Your task to perform on an android device: toggle improve location accuracy Image 0: 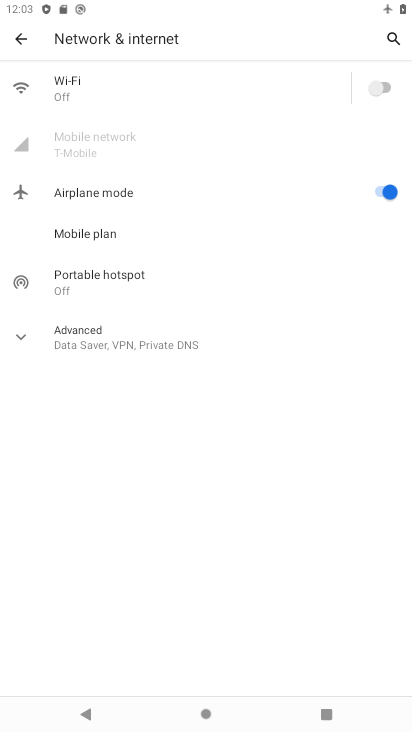
Step 0: press home button
Your task to perform on an android device: toggle improve location accuracy Image 1: 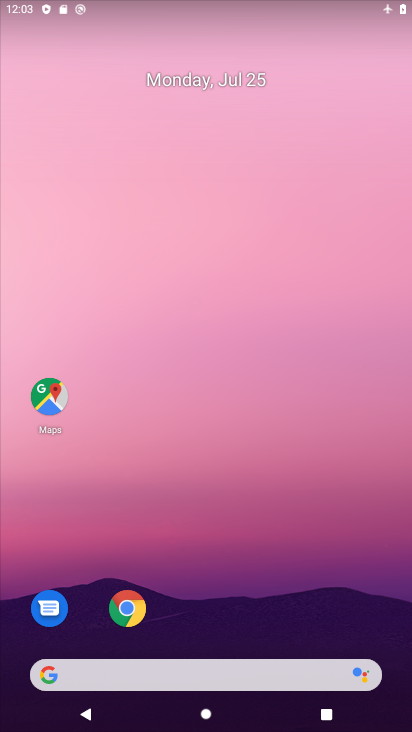
Step 1: drag from (296, 519) to (239, 164)
Your task to perform on an android device: toggle improve location accuracy Image 2: 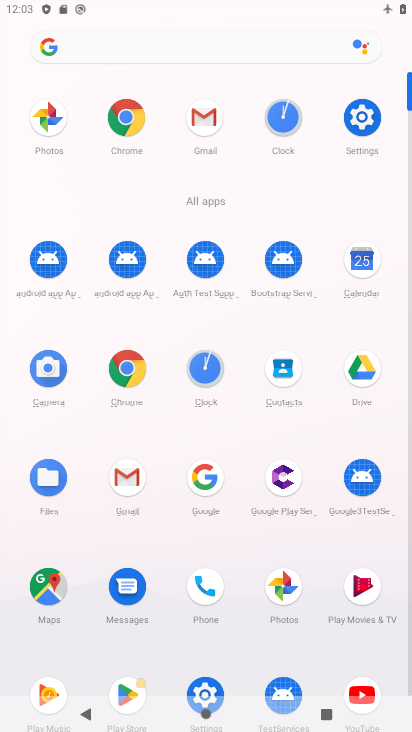
Step 2: click (199, 686)
Your task to perform on an android device: toggle improve location accuracy Image 3: 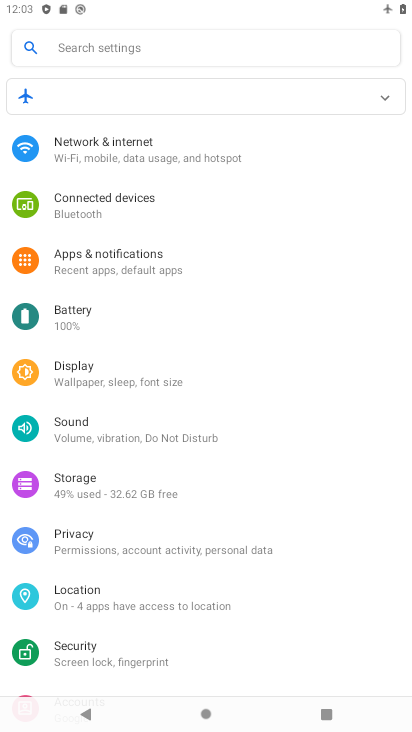
Step 3: click (141, 600)
Your task to perform on an android device: toggle improve location accuracy Image 4: 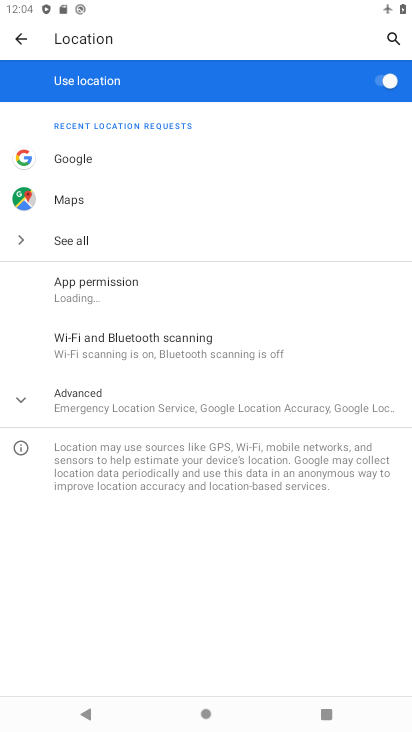
Step 4: click (158, 406)
Your task to perform on an android device: toggle improve location accuracy Image 5: 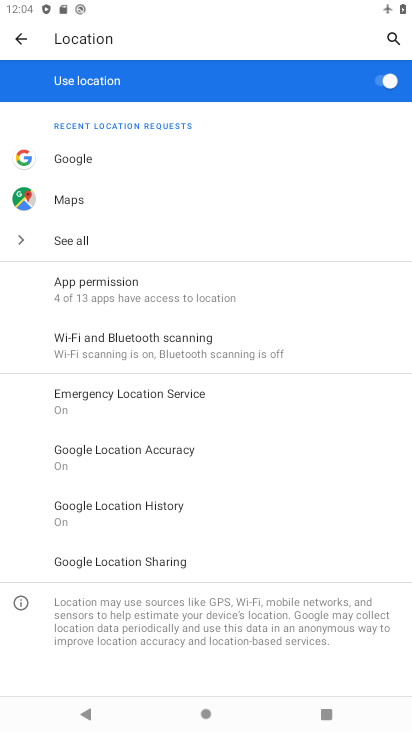
Step 5: click (194, 462)
Your task to perform on an android device: toggle improve location accuracy Image 6: 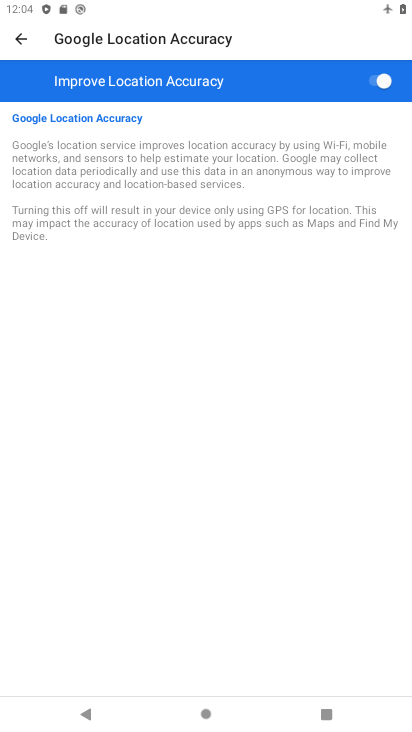
Step 6: click (386, 78)
Your task to perform on an android device: toggle improve location accuracy Image 7: 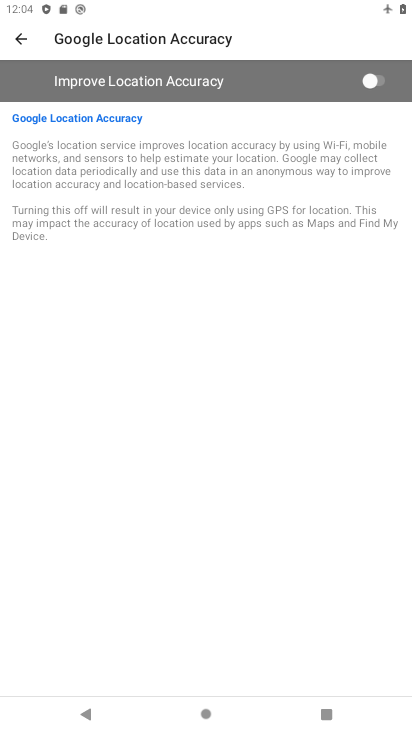
Step 7: task complete